Your task to perform on an android device: Turn on the flashlight Image 0: 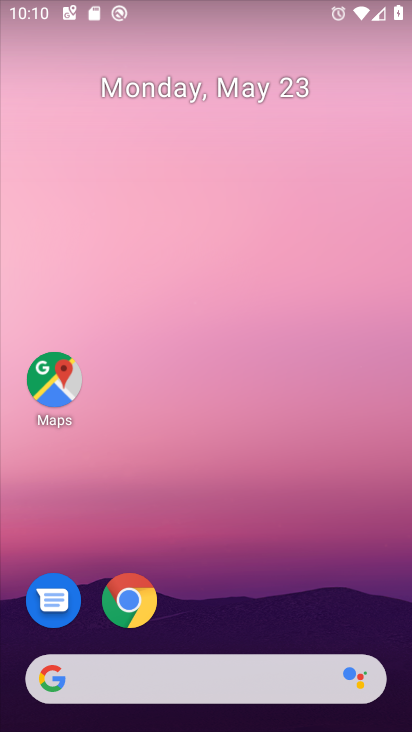
Step 0: drag from (207, 720) to (165, 368)
Your task to perform on an android device: Turn on the flashlight Image 1: 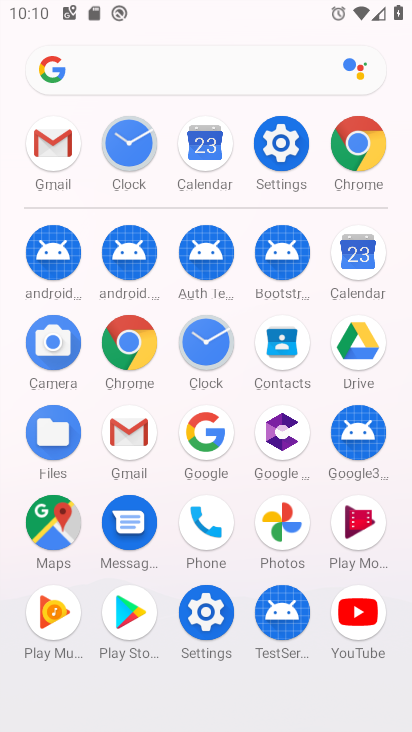
Step 1: click (286, 139)
Your task to perform on an android device: Turn on the flashlight Image 2: 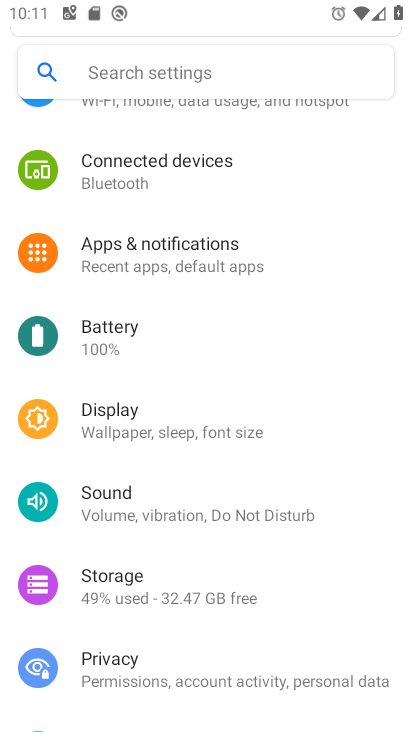
Step 2: task complete